Your task to perform on an android device: change timer sound Image 0: 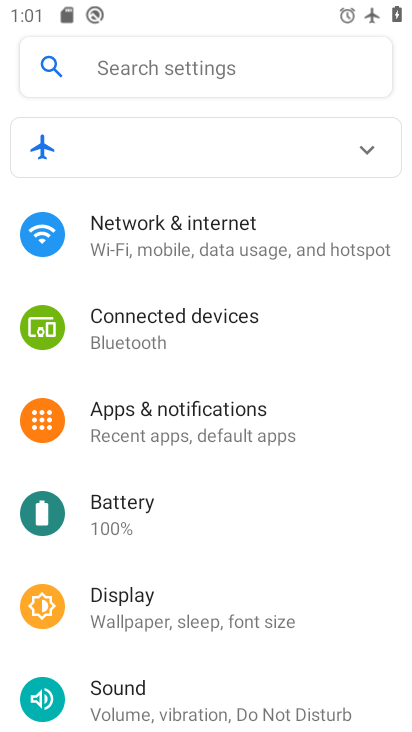
Step 0: press home button
Your task to perform on an android device: change timer sound Image 1: 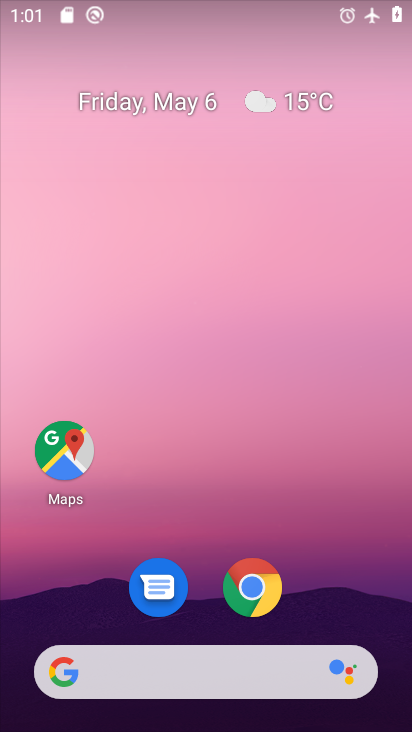
Step 1: drag from (339, 583) to (236, 34)
Your task to perform on an android device: change timer sound Image 2: 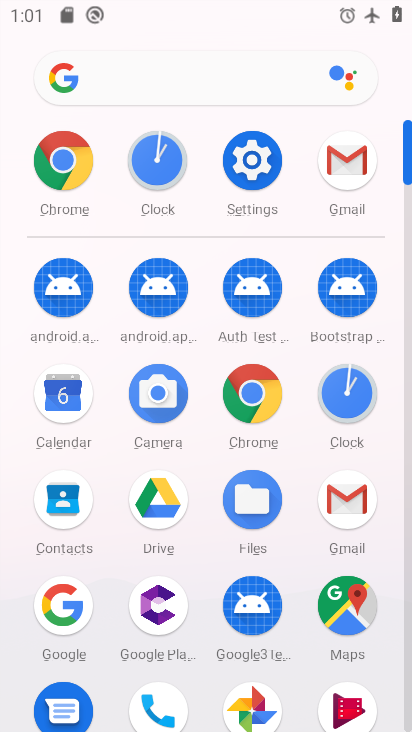
Step 2: click (336, 376)
Your task to perform on an android device: change timer sound Image 3: 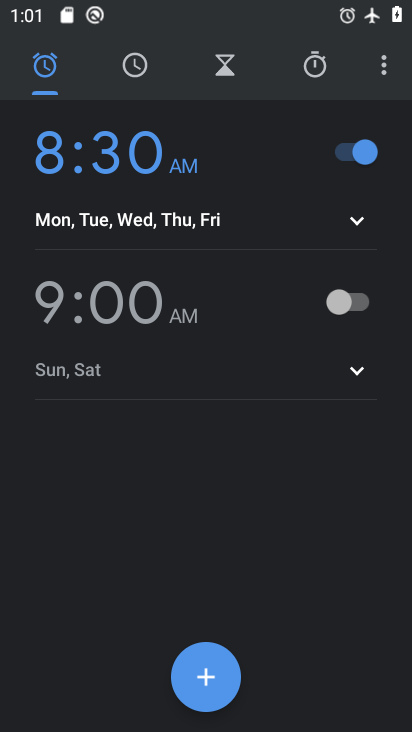
Step 3: click (376, 63)
Your task to perform on an android device: change timer sound Image 4: 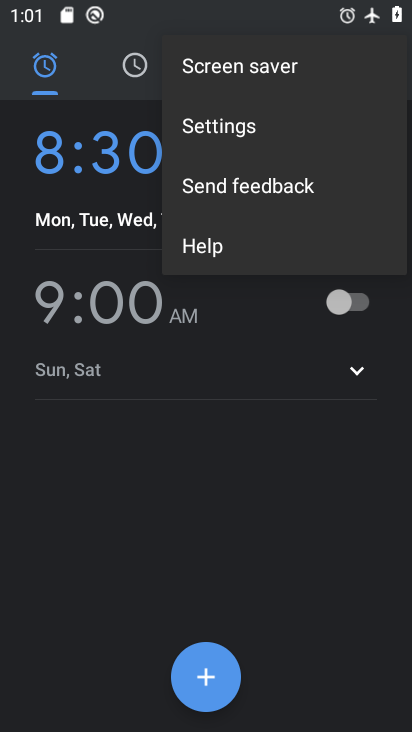
Step 4: click (217, 139)
Your task to perform on an android device: change timer sound Image 5: 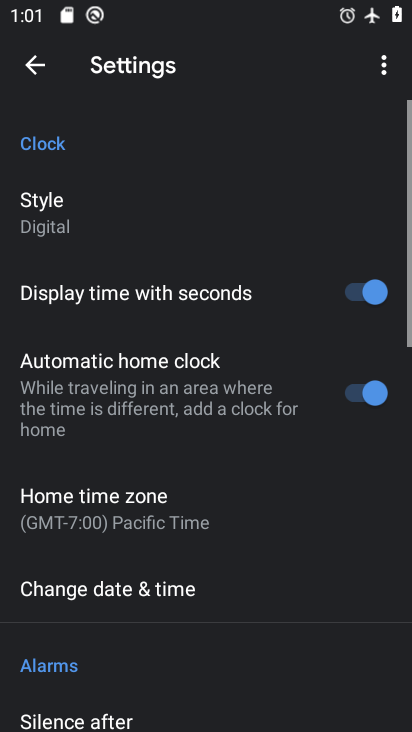
Step 5: drag from (243, 576) to (186, 32)
Your task to perform on an android device: change timer sound Image 6: 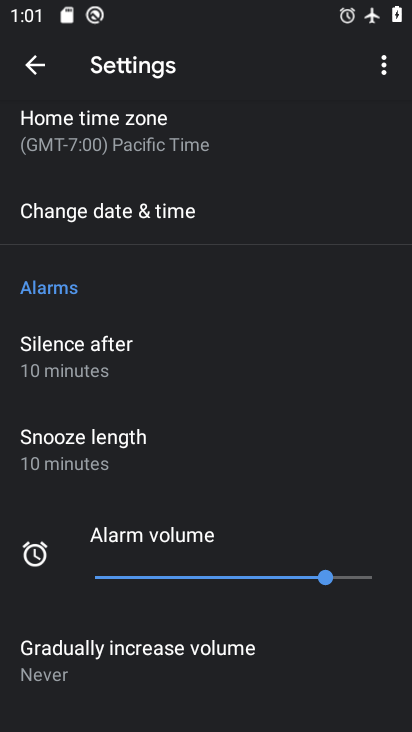
Step 6: drag from (167, 634) to (152, 238)
Your task to perform on an android device: change timer sound Image 7: 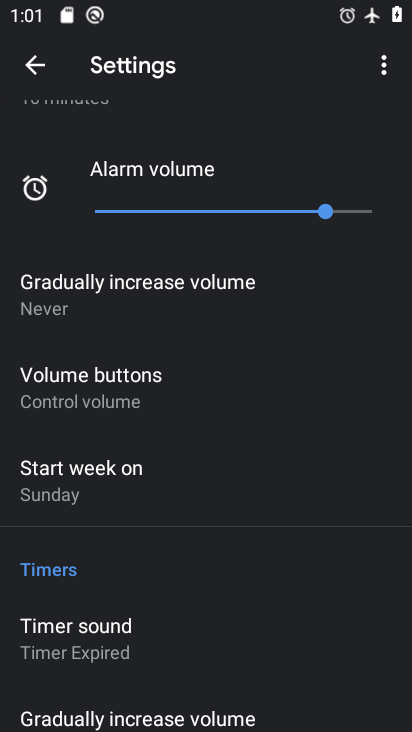
Step 7: click (109, 641)
Your task to perform on an android device: change timer sound Image 8: 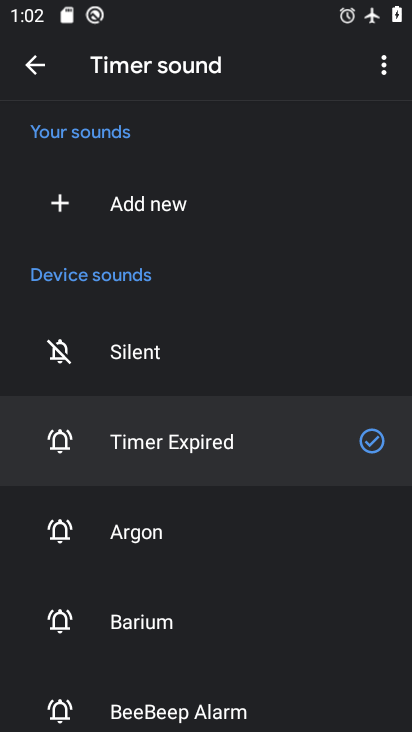
Step 8: click (244, 513)
Your task to perform on an android device: change timer sound Image 9: 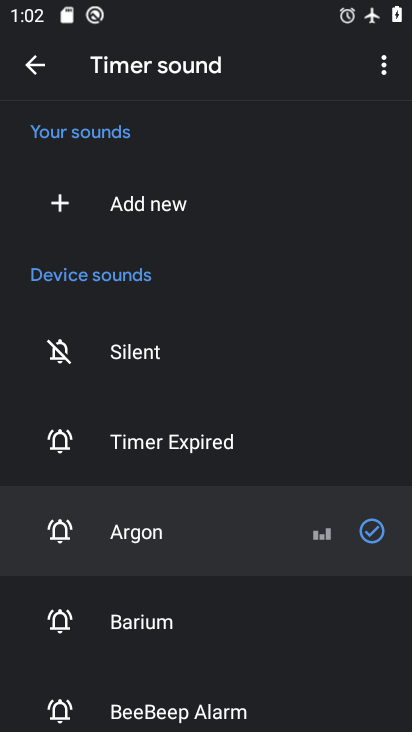
Step 9: task complete